Your task to perform on an android device: toggle javascript in the chrome app Image 0: 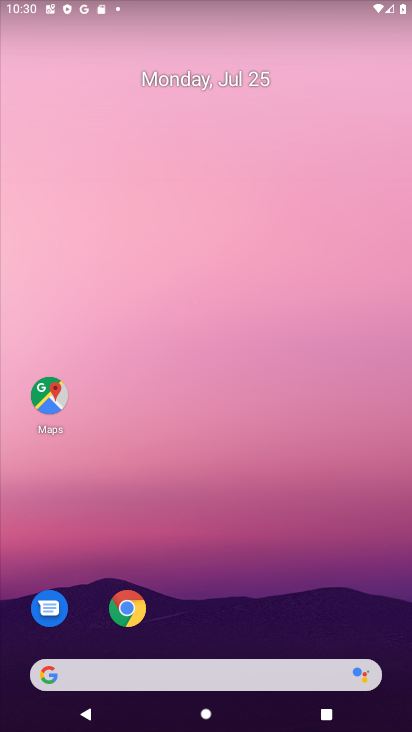
Step 0: drag from (199, 600) to (254, 216)
Your task to perform on an android device: toggle javascript in the chrome app Image 1: 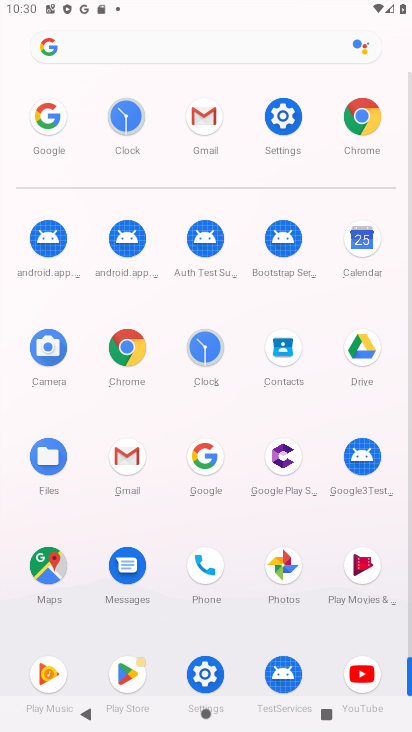
Step 1: click (131, 361)
Your task to perform on an android device: toggle javascript in the chrome app Image 2: 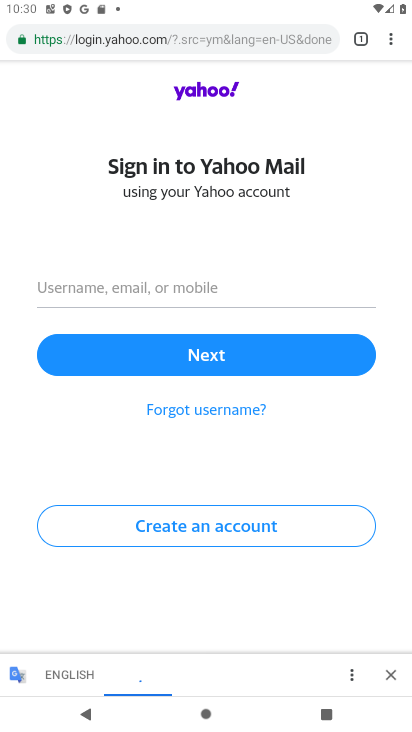
Step 2: click (394, 44)
Your task to perform on an android device: toggle javascript in the chrome app Image 3: 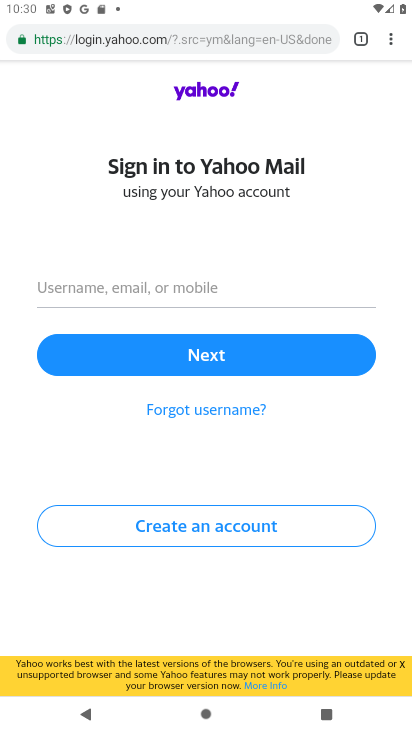
Step 3: click (388, 38)
Your task to perform on an android device: toggle javascript in the chrome app Image 4: 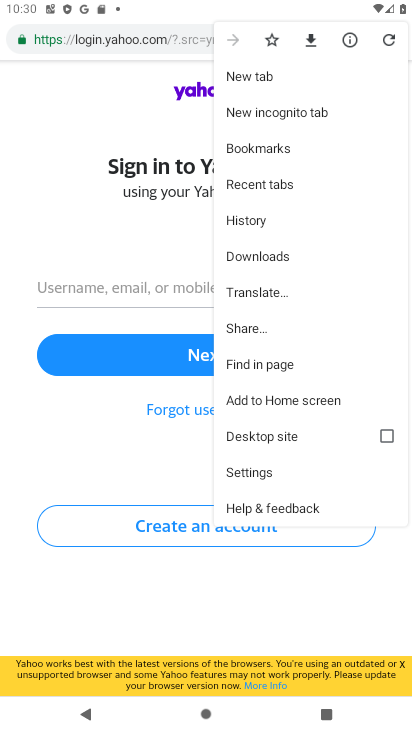
Step 4: click (266, 472)
Your task to perform on an android device: toggle javascript in the chrome app Image 5: 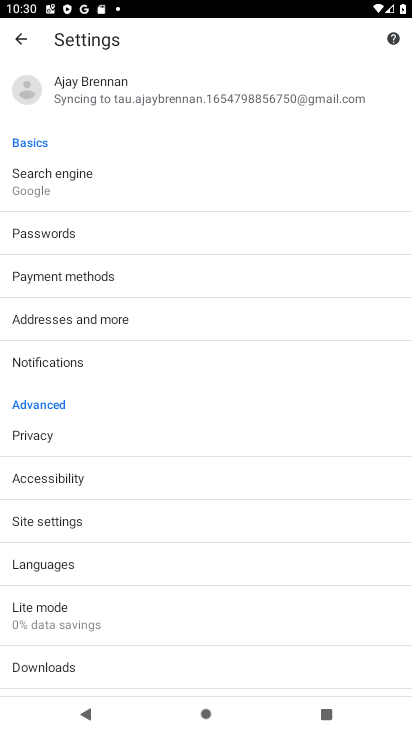
Step 5: click (60, 526)
Your task to perform on an android device: toggle javascript in the chrome app Image 6: 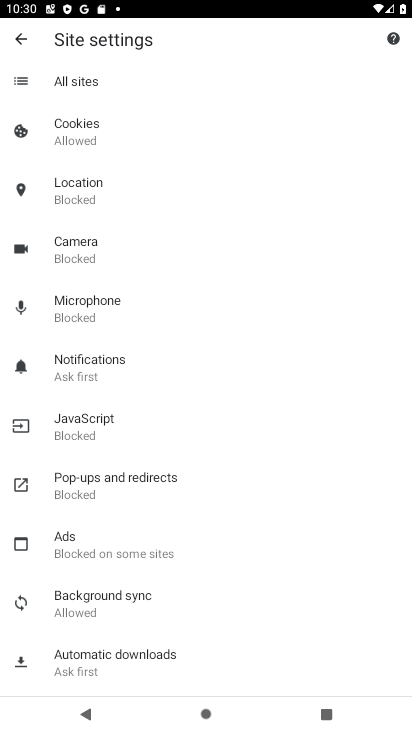
Step 6: click (67, 431)
Your task to perform on an android device: toggle javascript in the chrome app Image 7: 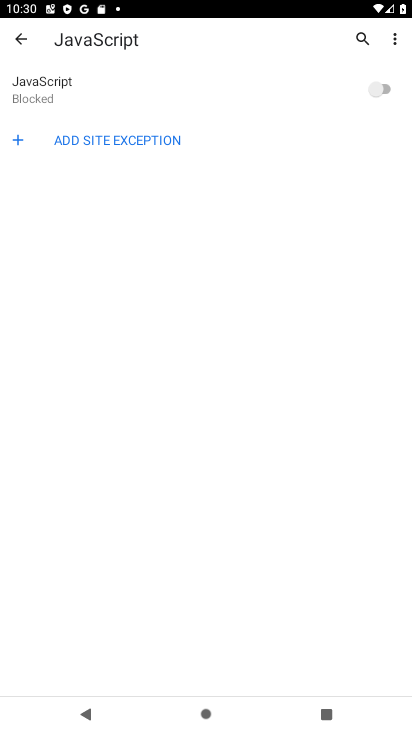
Step 7: click (387, 85)
Your task to perform on an android device: toggle javascript in the chrome app Image 8: 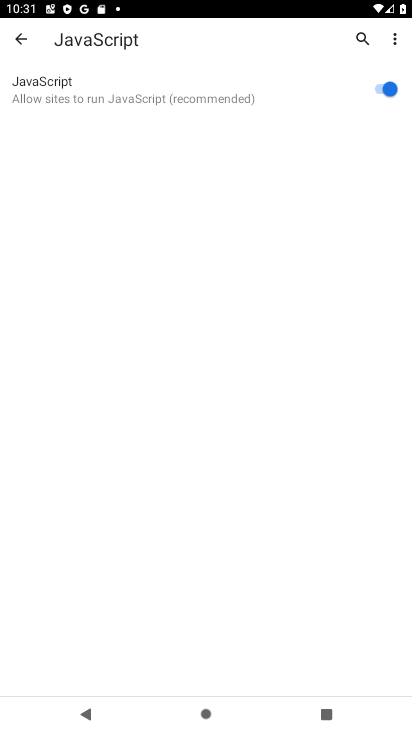
Step 8: task complete